Your task to perform on an android device: Open Youtube and go to the subscriptions tab Image 0: 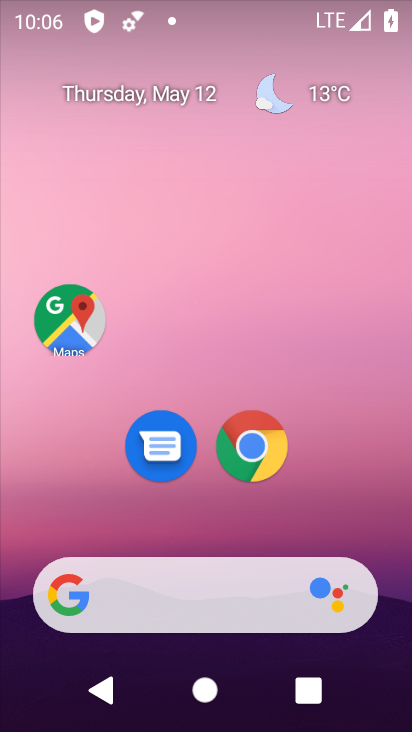
Step 0: drag from (370, 597) to (339, 44)
Your task to perform on an android device: Open Youtube and go to the subscriptions tab Image 1: 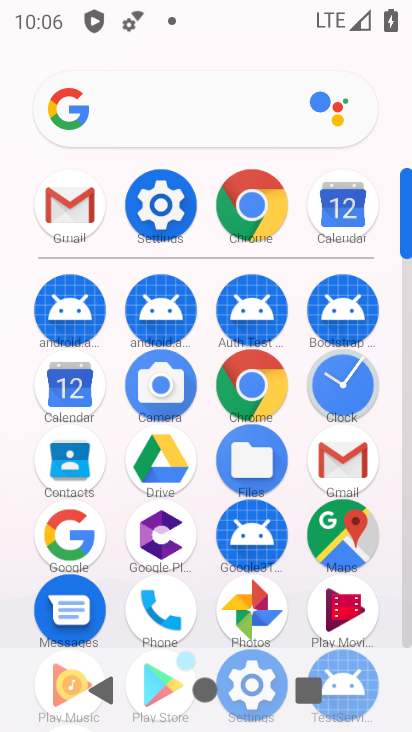
Step 1: drag from (283, 634) to (306, 160)
Your task to perform on an android device: Open Youtube and go to the subscriptions tab Image 2: 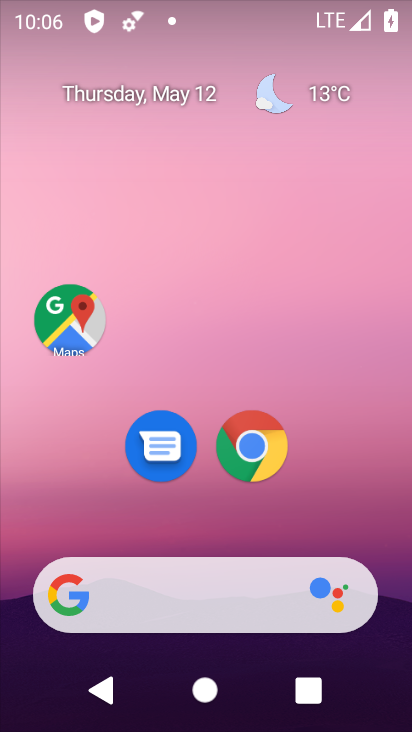
Step 2: drag from (291, 622) to (337, 148)
Your task to perform on an android device: Open Youtube and go to the subscriptions tab Image 3: 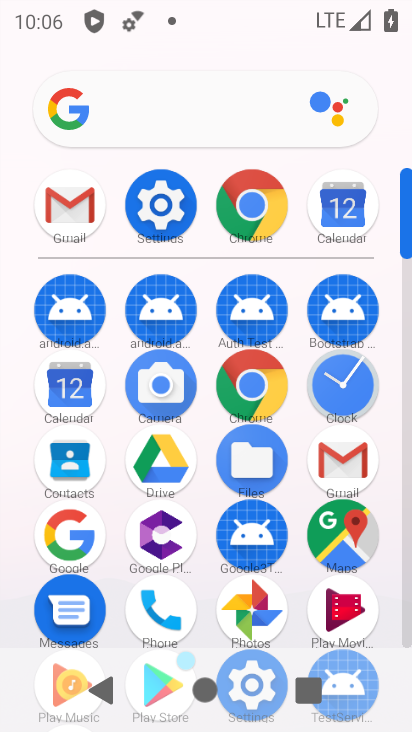
Step 3: drag from (285, 632) to (298, 333)
Your task to perform on an android device: Open Youtube and go to the subscriptions tab Image 4: 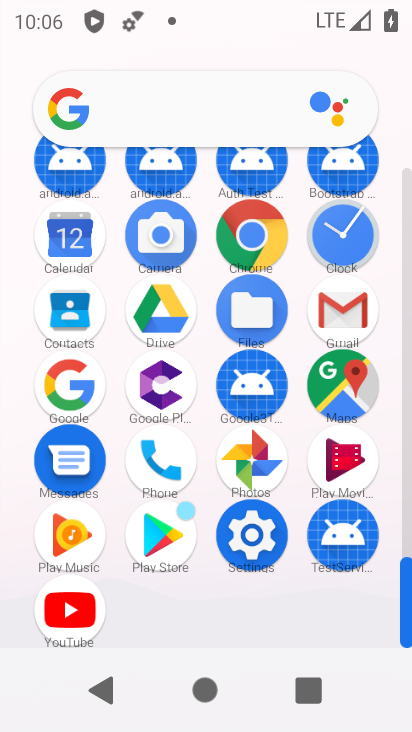
Step 4: click (81, 612)
Your task to perform on an android device: Open Youtube and go to the subscriptions tab Image 5: 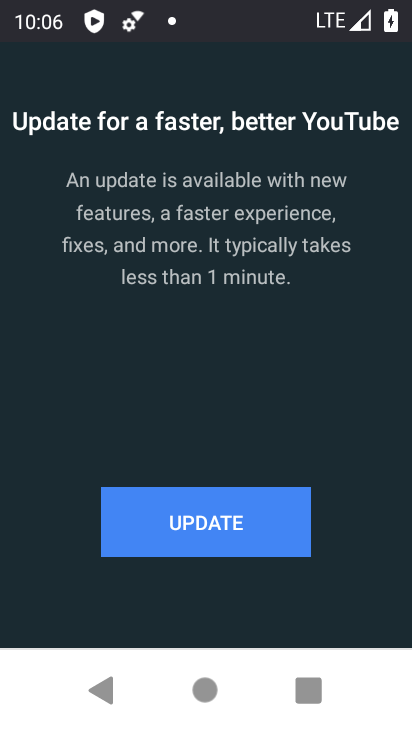
Step 5: click (188, 537)
Your task to perform on an android device: Open Youtube and go to the subscriptions tab Image 6: 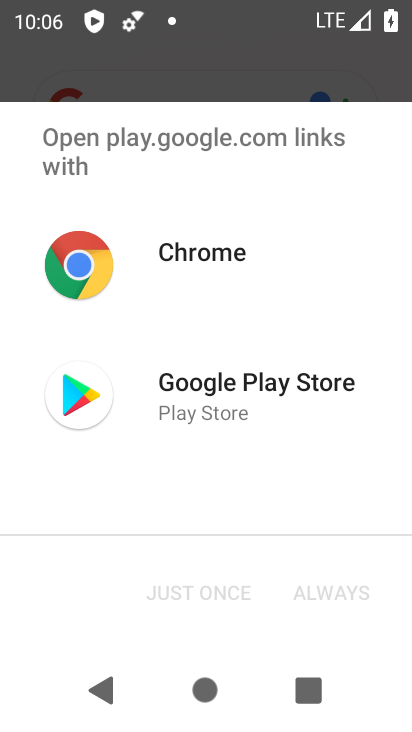
Step 6: click (401, 411)
Your task to perform on an android device: Open Youtube and go to the subscriptions tab Image 7: 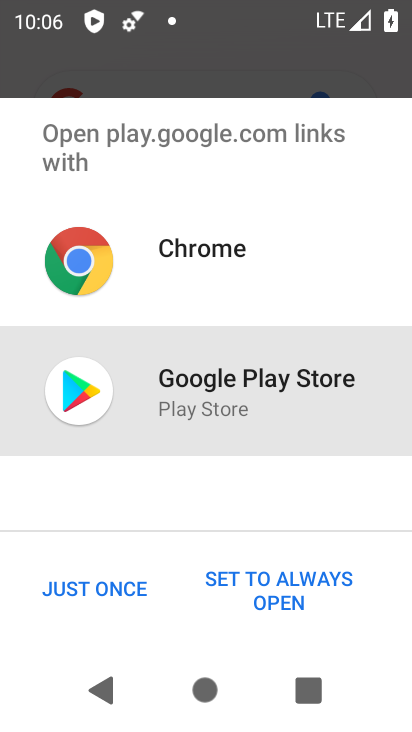
Step 7: click (104, 585)
Your task to perform on an android device: Open Youtube and go to the subscriptions tab Image 8: 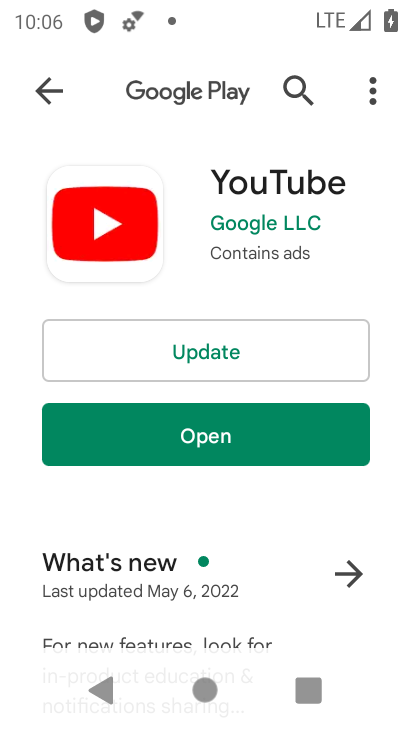
Step 8: click (252, 317)
Your task to perform on an android device: Open Youtube and go to the subscriptions tab Image 9: 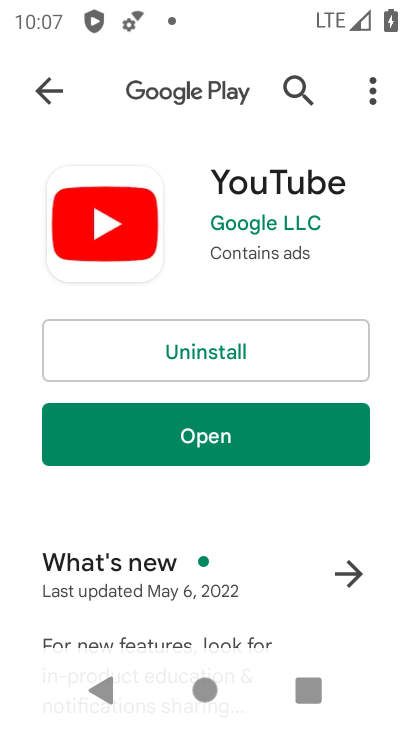
Step 9: click (251, 456)
Your task to perform on an android device: Open Youtube and go to the subscriptions tab Image 10: 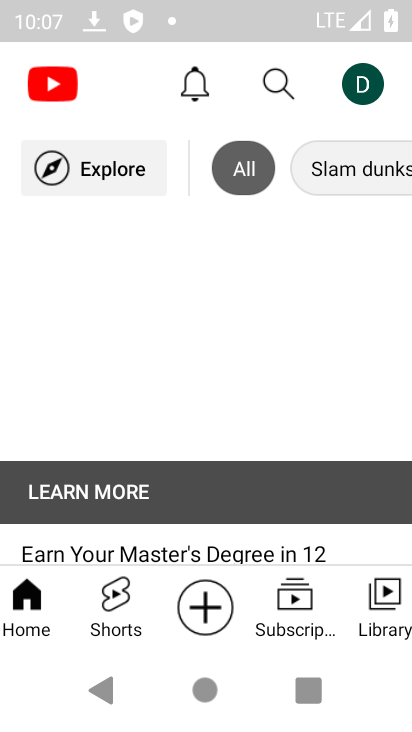
Step 10: click (295, 589)
Your task to perform on an android device: Open Youtube and go to the subscriptions tab Image 11: 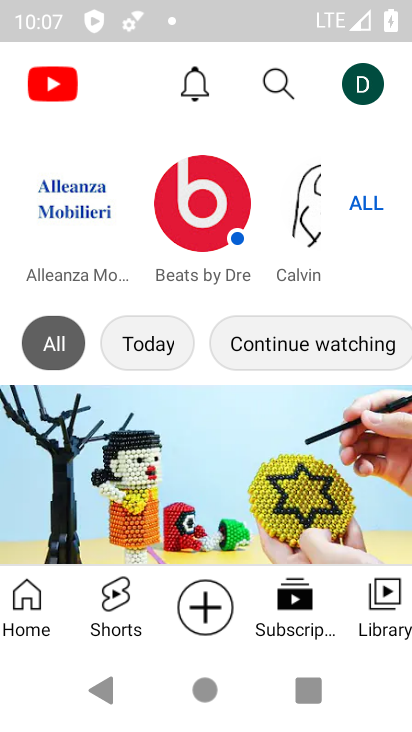
Step 11: task complete